Your task to perform on an android device: Do I have any events today? Image 0: 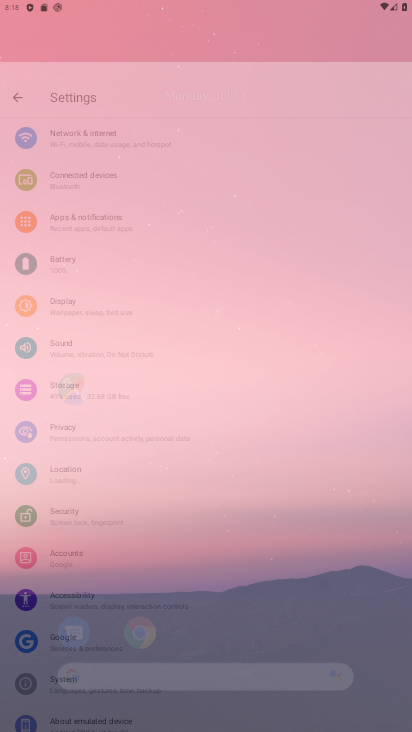
Step 0: click (130, 700)
Your task to perform on an android device: Do I have any events today? Image 1: 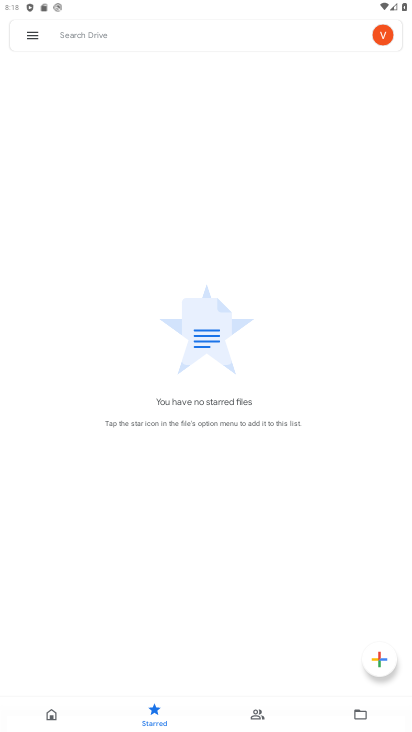
Step 1: press home button
Your task to perform on an android device: Do I have any events today? Image 2: 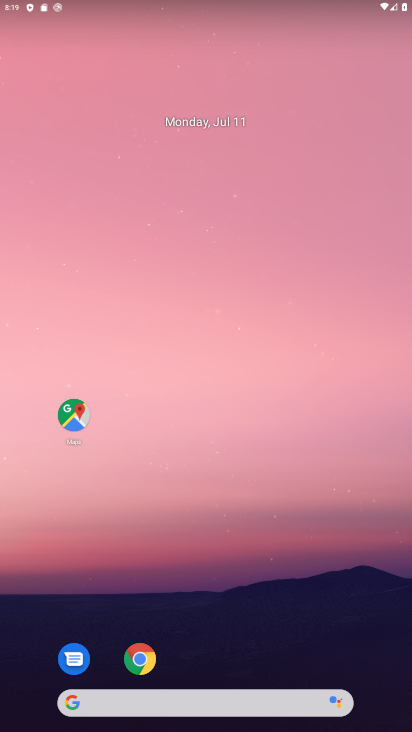
Step 2: drag from (18, 727) to (299, 27)
Your task to perform on an android device: Do I have any events today? Image 3: 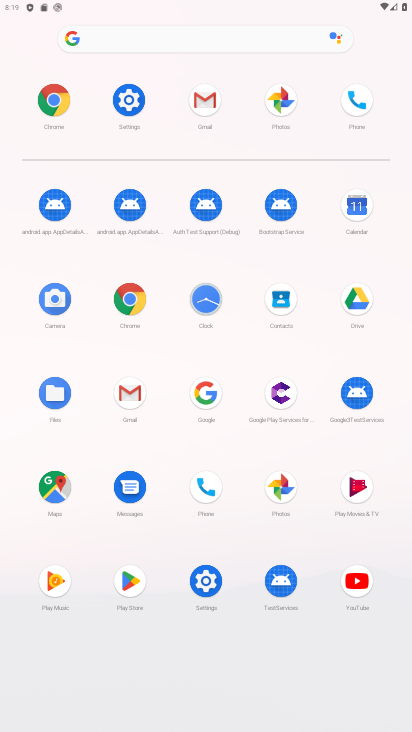
Step 3: click (356, 192)
Your task to perform on an android device: Do I have any events today? Image 4: 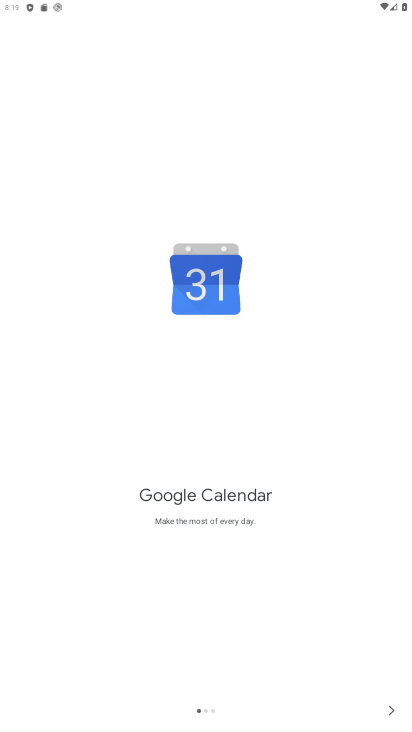
Step 4: click (382, 704)
Your task to perform on an android device: Do I have any events today? Image 5: 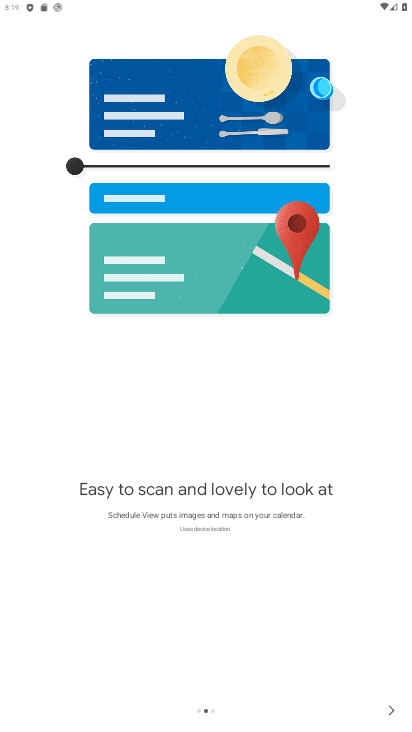
Step 5: click (396, 701)
Your task to perform on an android device: Do I have any events today? Image 6: 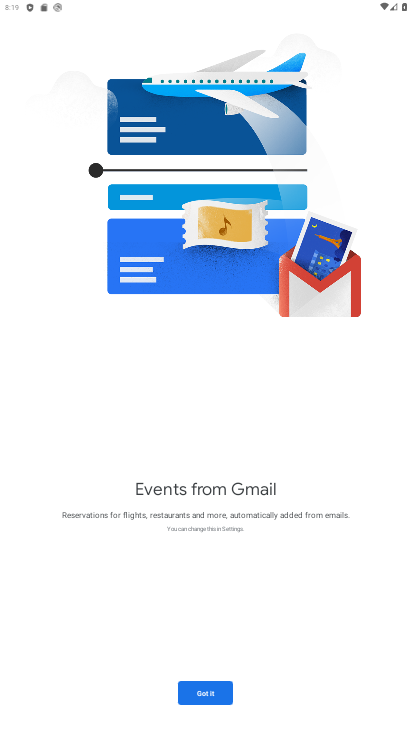
Step 6: click (212, 692)
Your task to perform on an android device: Do I have any events today? Image 7: 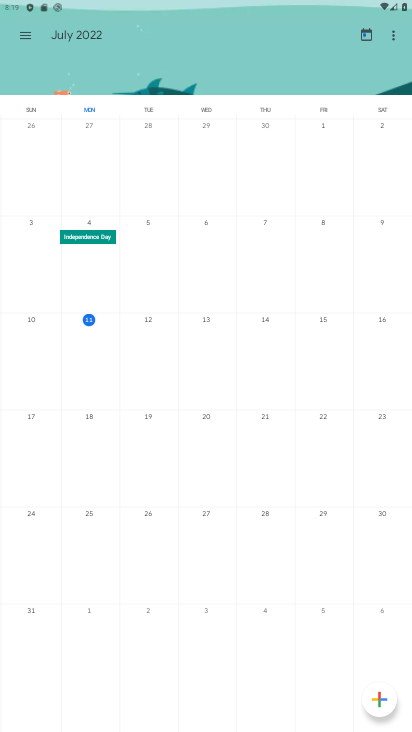
Step 7: click (16, 25)
Your task to perform on an android device: Do I have any events today? Image 8: 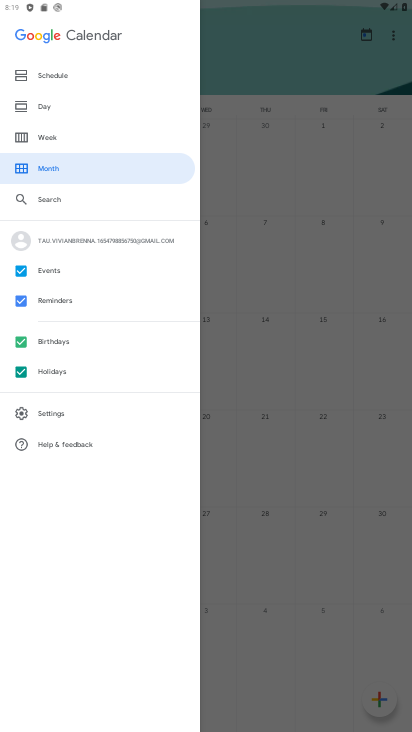
Step 8: task complete